Your task to perform on an android device: toggle wifi Image 0: 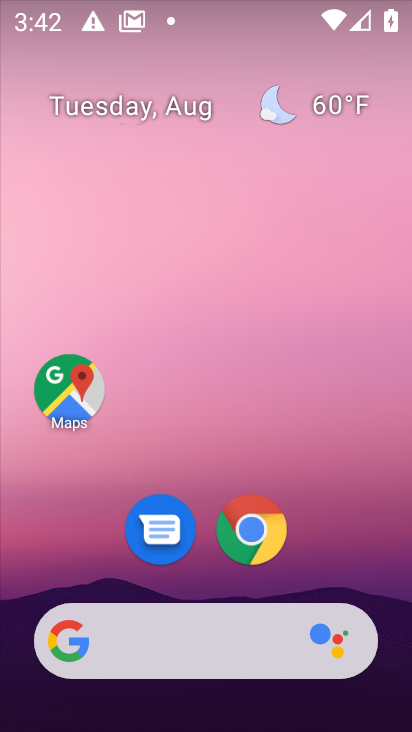
Step 0: drag from (240, 14) to (328, 517)
Your task to perform on an android device: toggle wifi Image 1: 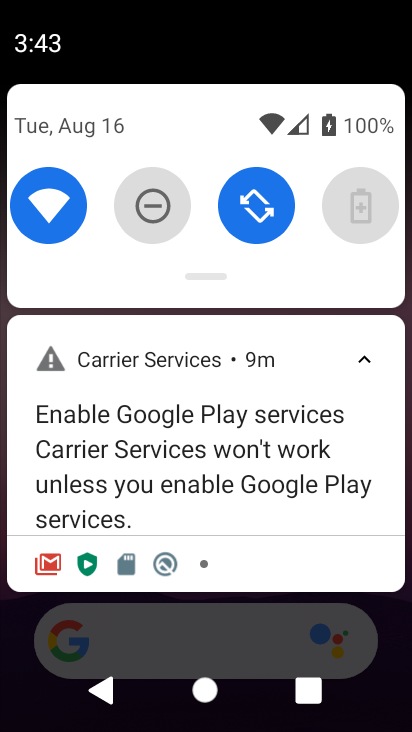
Step 1: click (56, 229)
Your task to perform on an android device: toggle wifi Image 2: 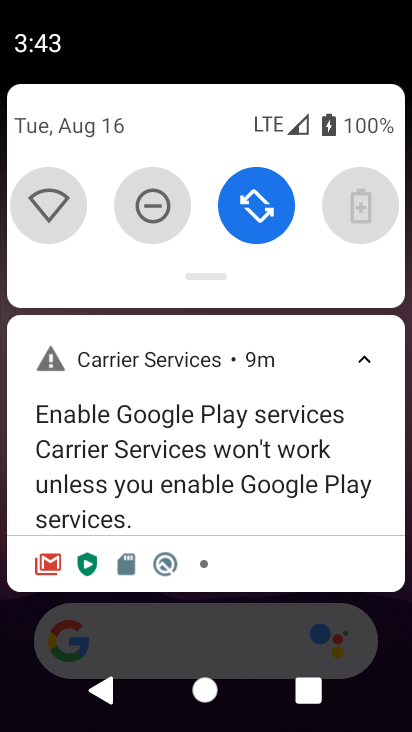
Step 2: task complete